Your task to perform on an android device: turn on airplane mode Image 0: 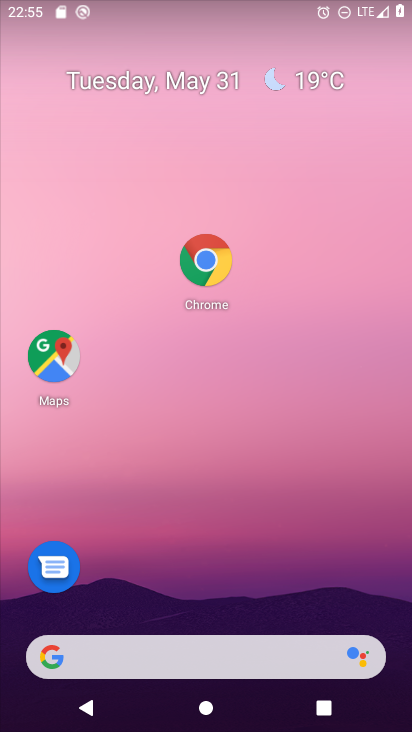
Step 0: drag from (179, 644) to (218, 302)
Your task to perform on an android device: turn on airplane mode Image 1: 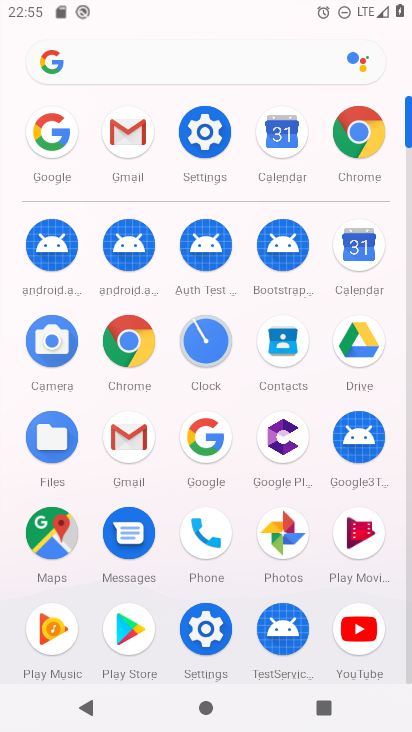
Step 1: click (204, 138)
Your task to perform on an android device: turn on airplane mode Image 2: 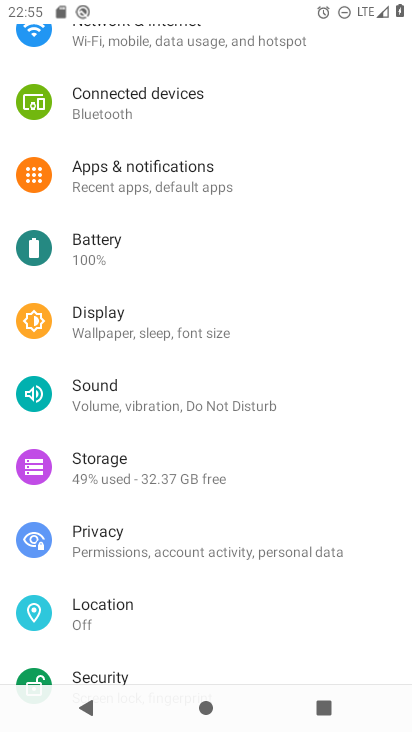
Step 2: drag from (201, 105) to (211, 515)
Your task to perform on an android device: turn on airplane mode Image 3: 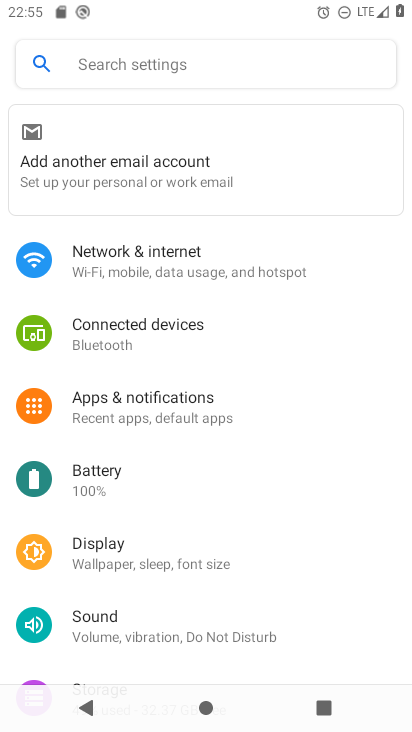
Step 3: click (138, 263)
Your task to perform on an android device: turn on airplane mode Image 4: 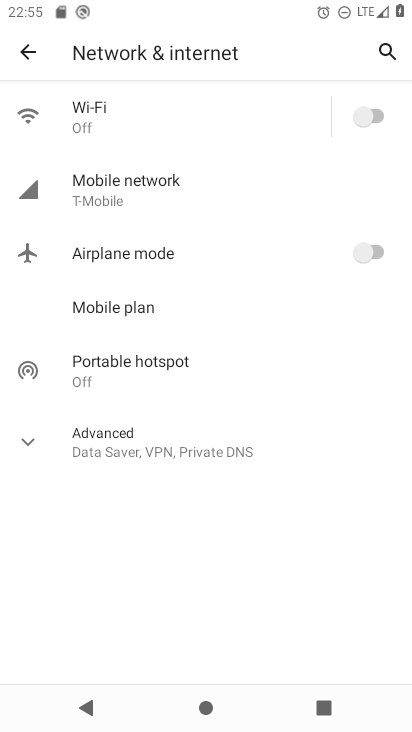
Step 4: click (368, 243)
Your task to perform on an android device: turn on airplane mode Image 5: 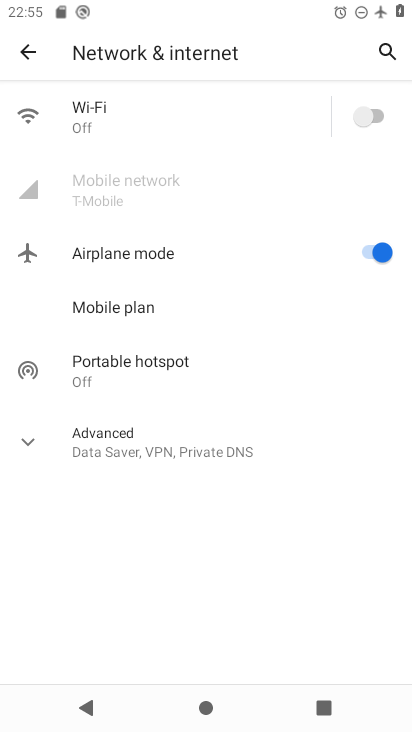
Step 5: task complete